Your task to perform on an android device: empty trash in the gmail app Image 0: 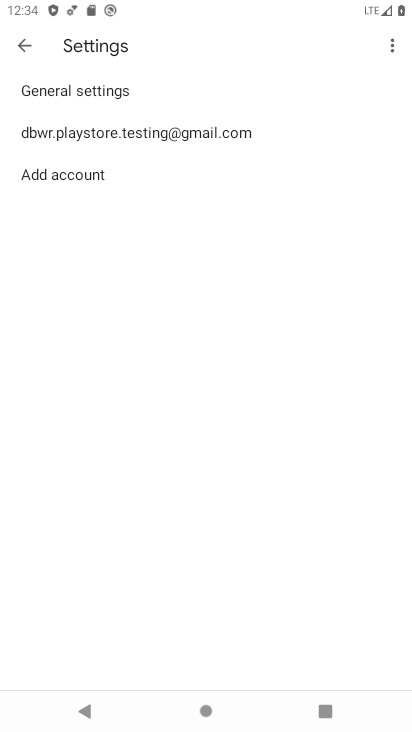
Step 0: press home button
Your task to perform on an android device: empty trash in the gmail app Image 1: 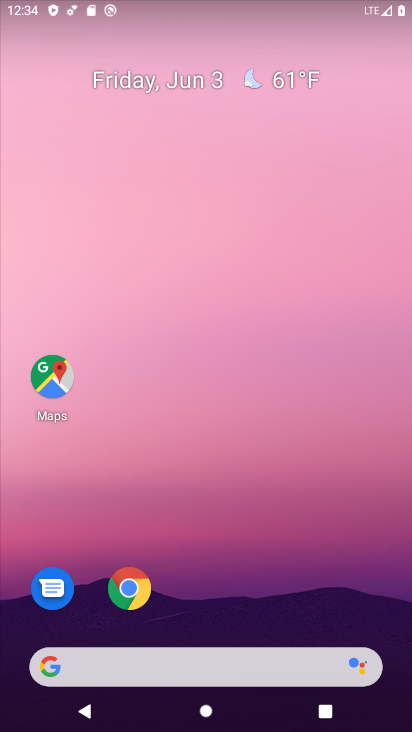
Step 1: drag from (222, 634) to (192, 219)
Your task to perform on an android device: empty trash in the gmail app Image 2: 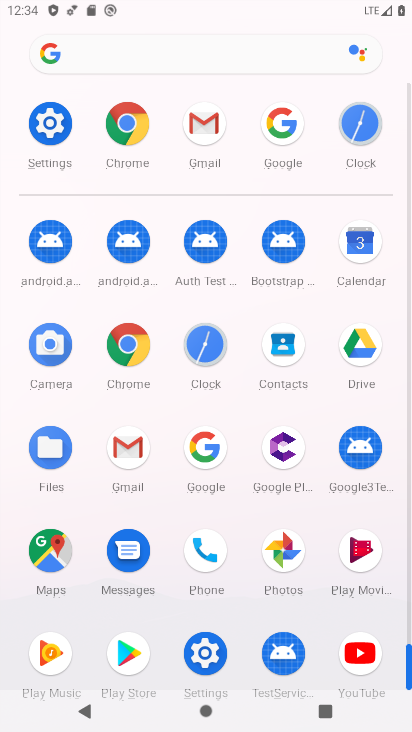
Step 2: click (129, 454)
Your task to perform on an android device: empty trash in the gmail app Image 3: 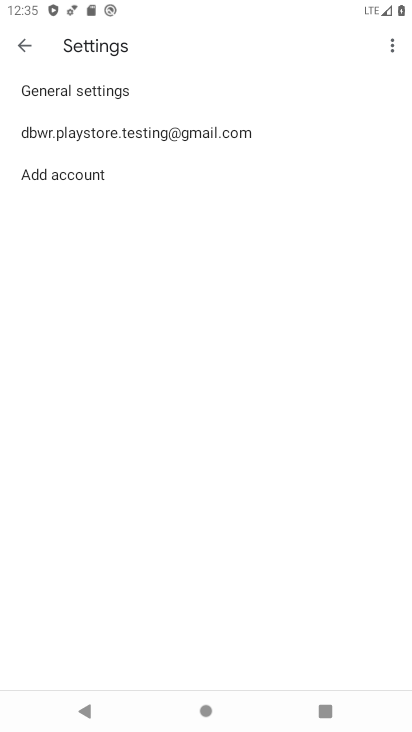
Step 3: press back button
Your task to perform on an android device: empty trash in the gmail app Image 4: 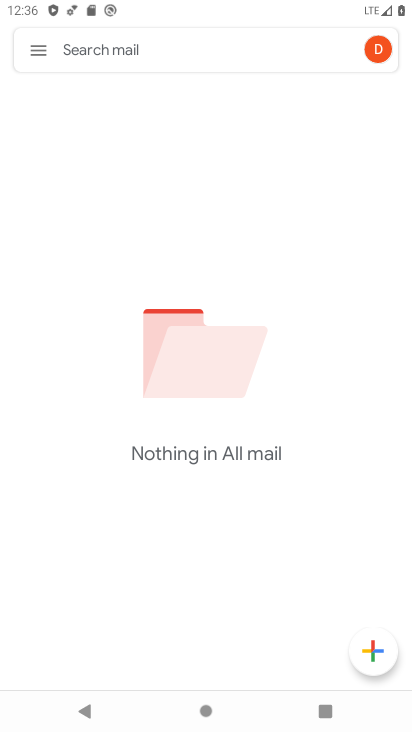
Step 4: click (30, 59)
Your task to perform on an android device: empty trash in the gmail app Image 5: 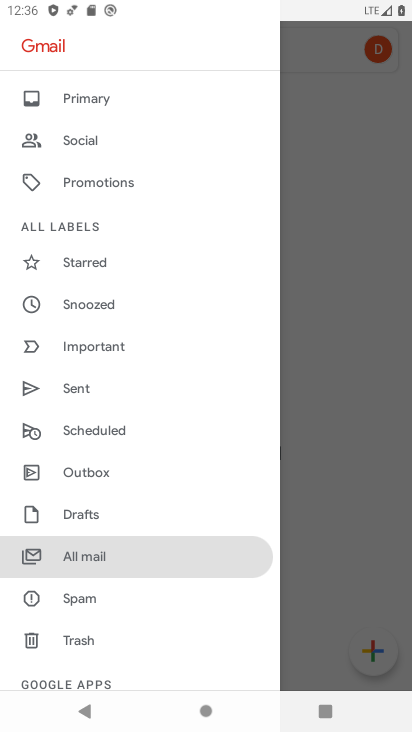
Step 5: click (61, 641)
Your task to perform on an android device: empty trash in the gmail app Image 6: 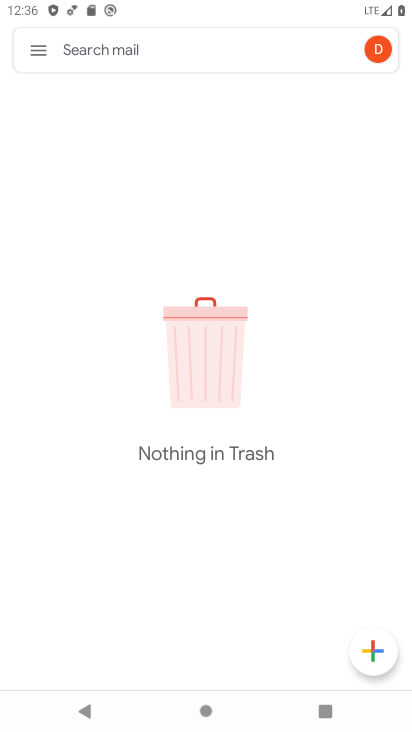
Step 6: task complete